Your task to perform on an android device: Empty the shopping cart on target. Add razer huntsman to the cart on target Image 0: 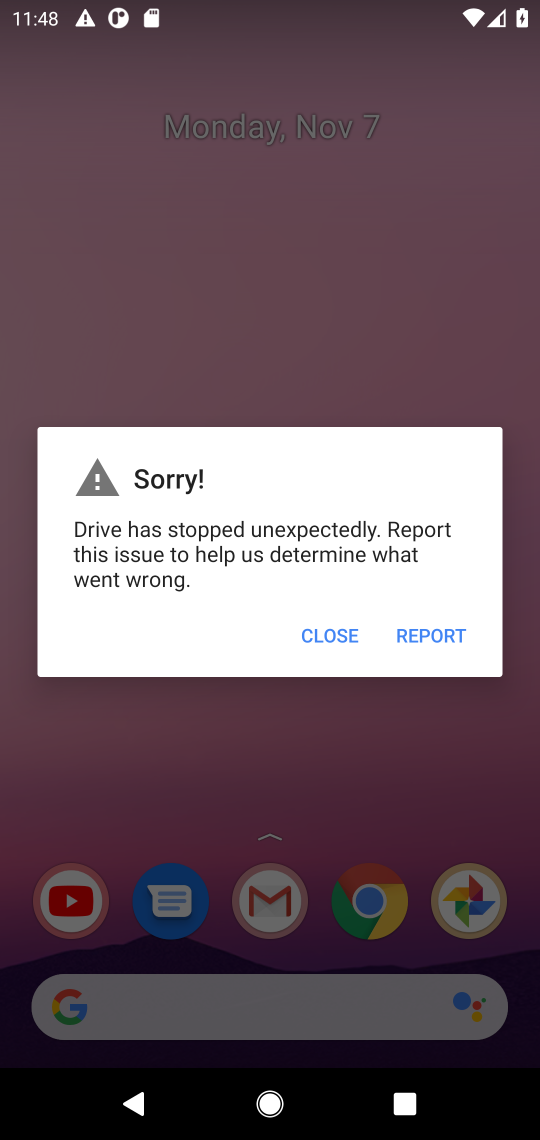
Step 0: click (339, 639)
Your task to perform on an android device: Empty the shopping cart on target. Add razer huntsman to the cart on target Image 1: 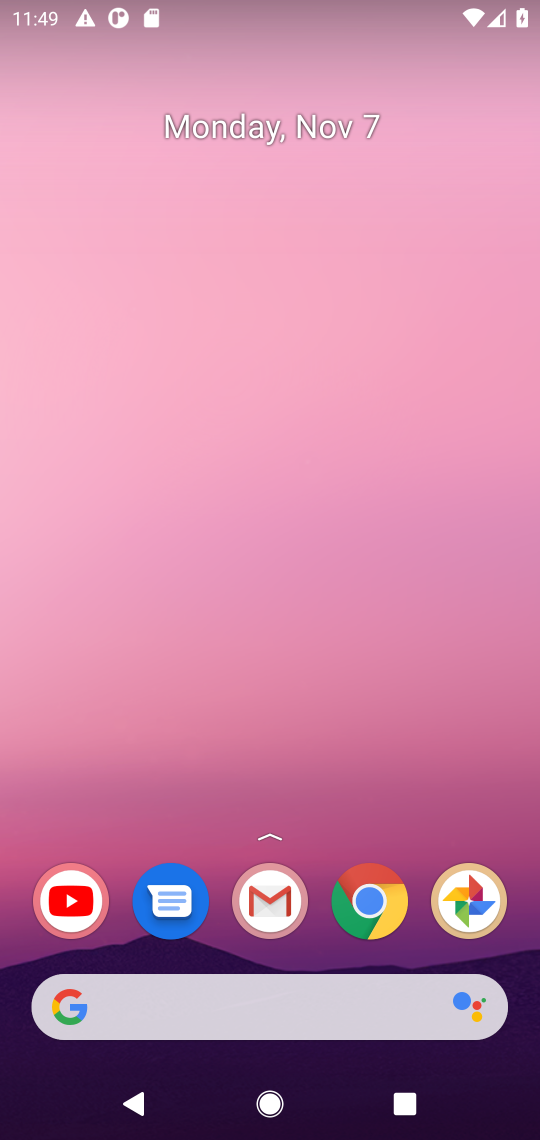
Step 1: click (365, 917)
Your task to perform on an android device: Empty the shopping cart on target. Add razer huntsman to the cart on target Image 2: 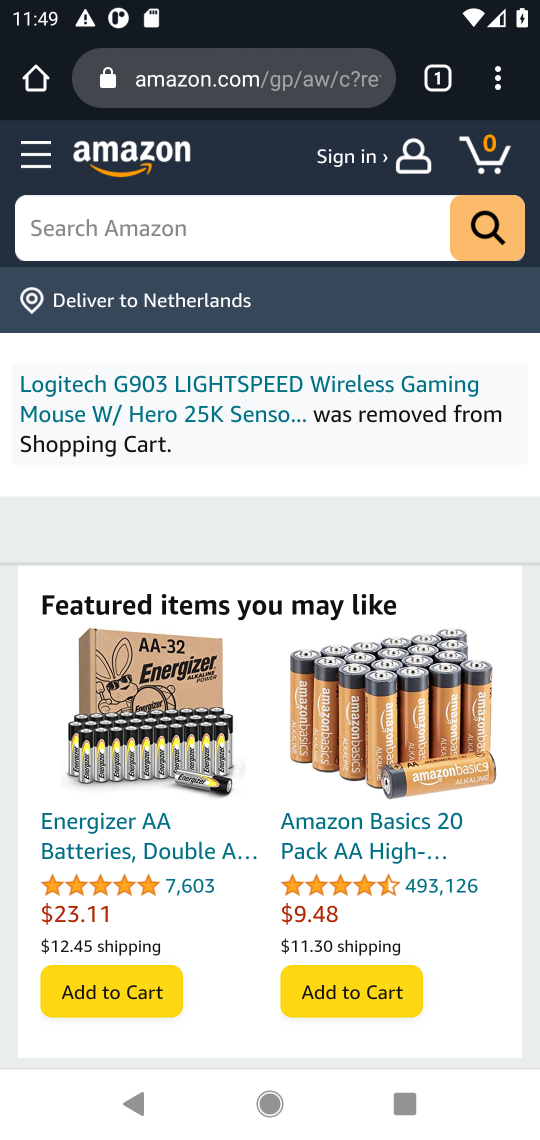
Step 2: click (217, 74)
Your task to perform on an android device: Empty the shopping cart on target. Add razer huntsman to the cart on target Image 3: 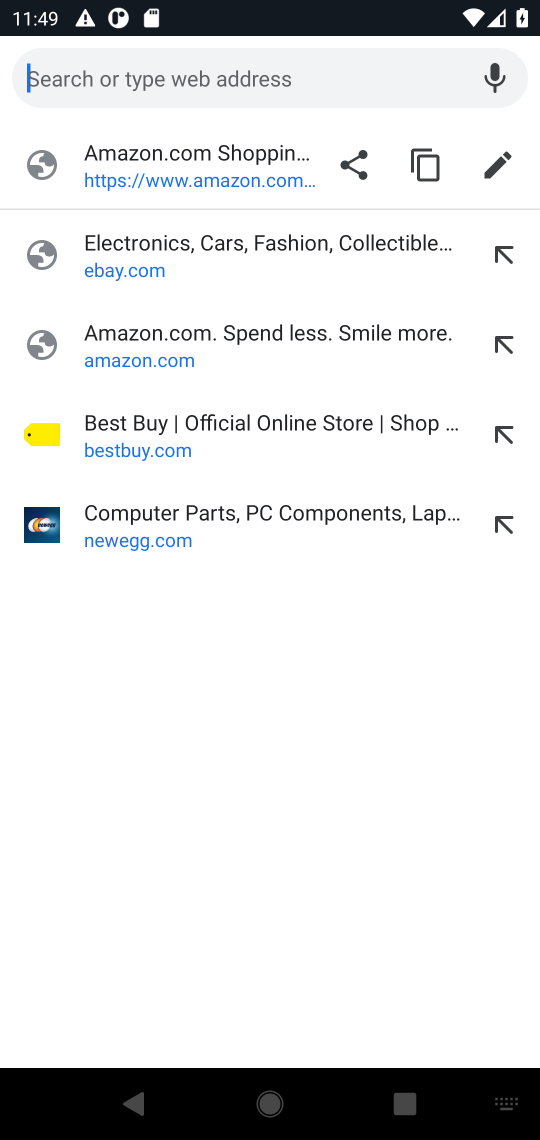
Step 3: type "target"
Your task to perform on an android device: Empty the shopping cart on target. Add razer huntsman to the cart on target Image 4: 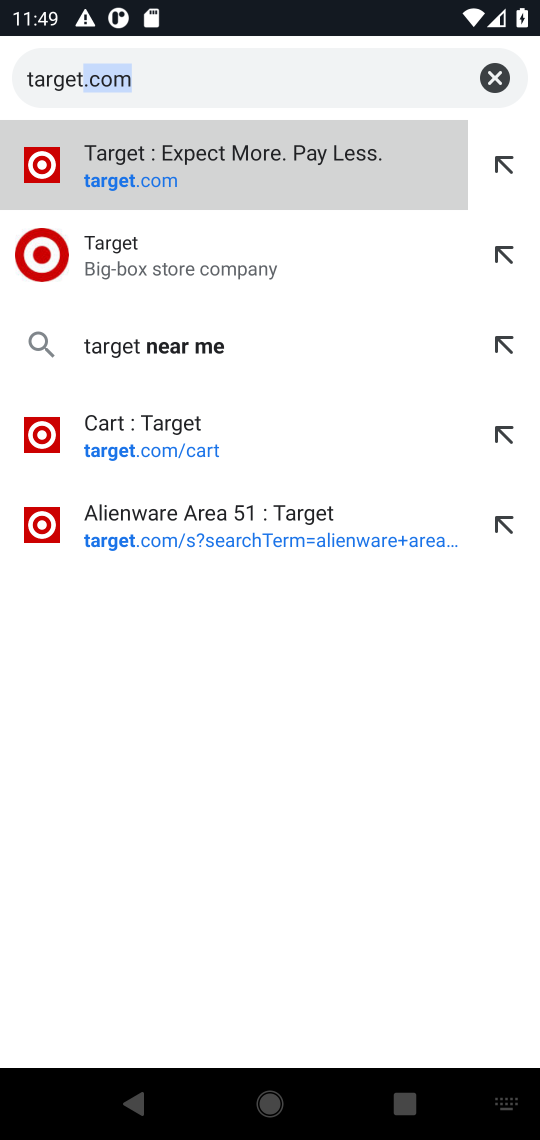
Step 4: click (131, 187)
Your task to perform on an android device: Empty the shopping cart on target. Add razer huntsman to the cart on target Image 5: 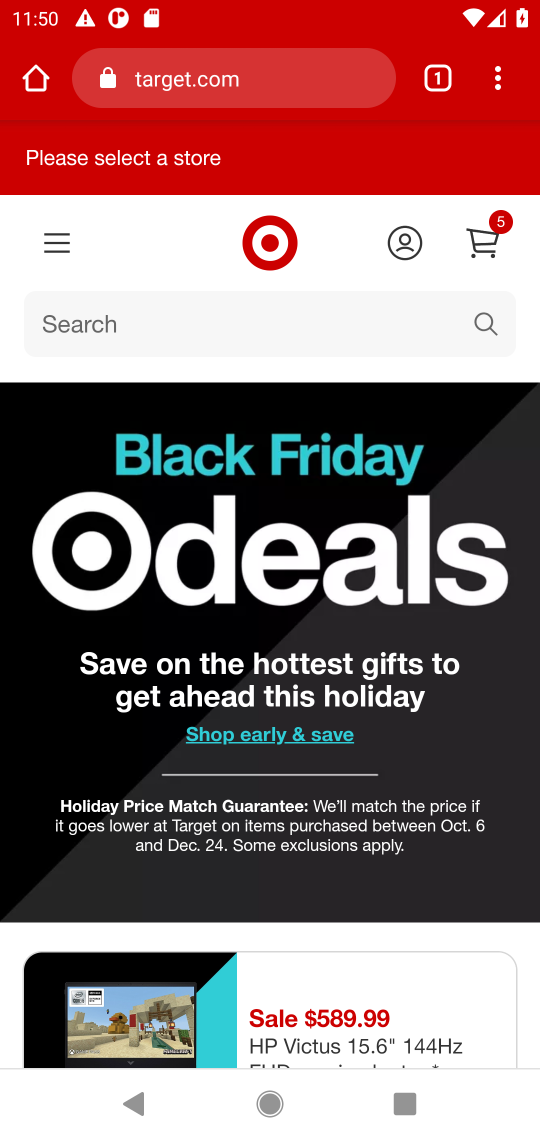
Step 5: click (272, 319)
Your task to perform on an android device: Empty the shopping cart on target. Add razer huntsman to the cart on target Image 6: 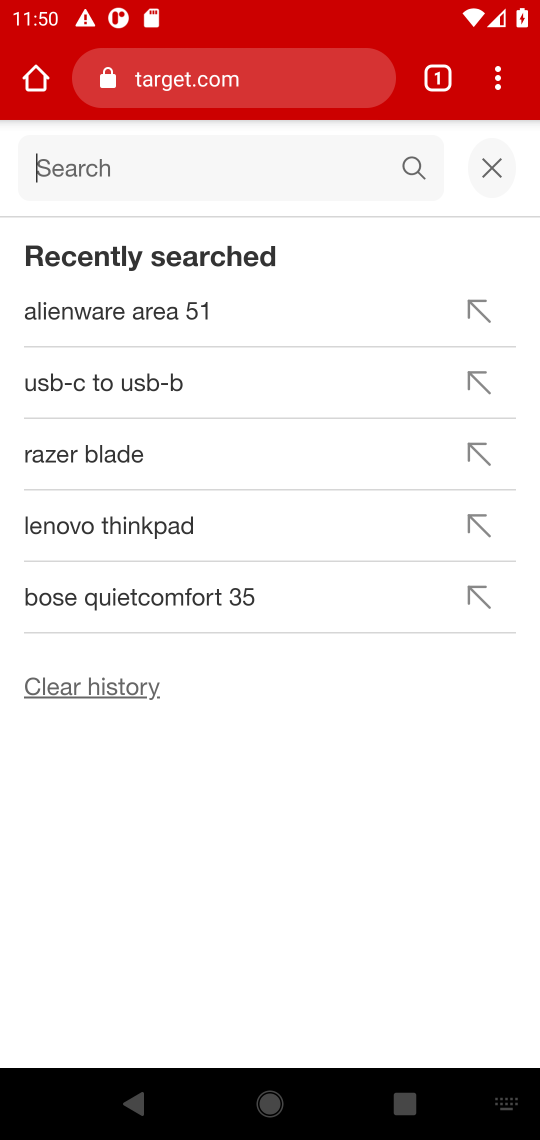
Step 6: type "razer huntsman"
Your task to perform on an android device: Empty the shopping cart on target. Add razer huntsman to the cart on target Image 7: 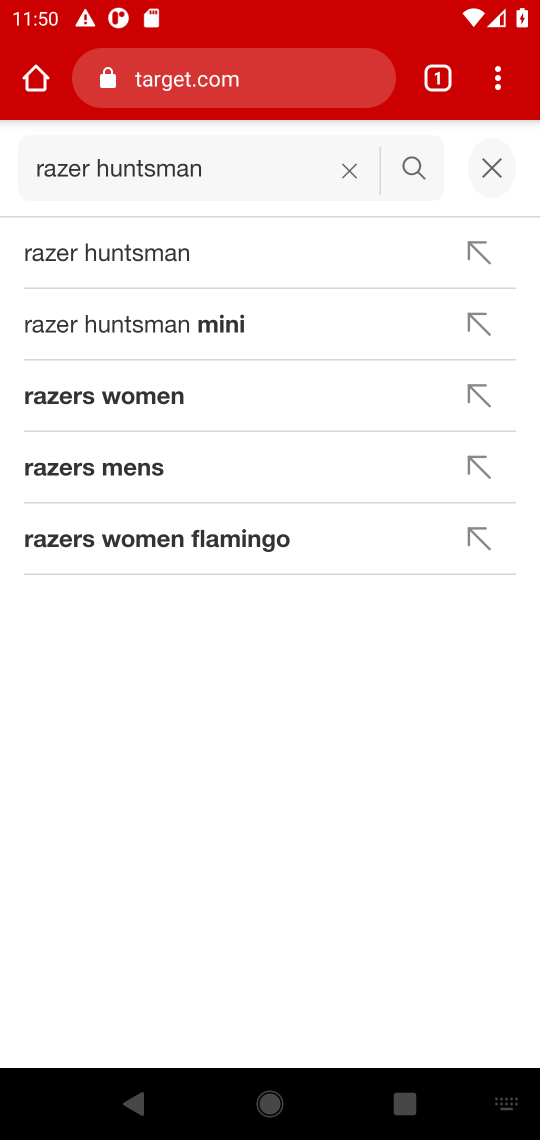
Step 7: press enter
Your task to perform on an android device: Empty the shopping cart on target. Add razer huntsman to the cart on target Image 8: 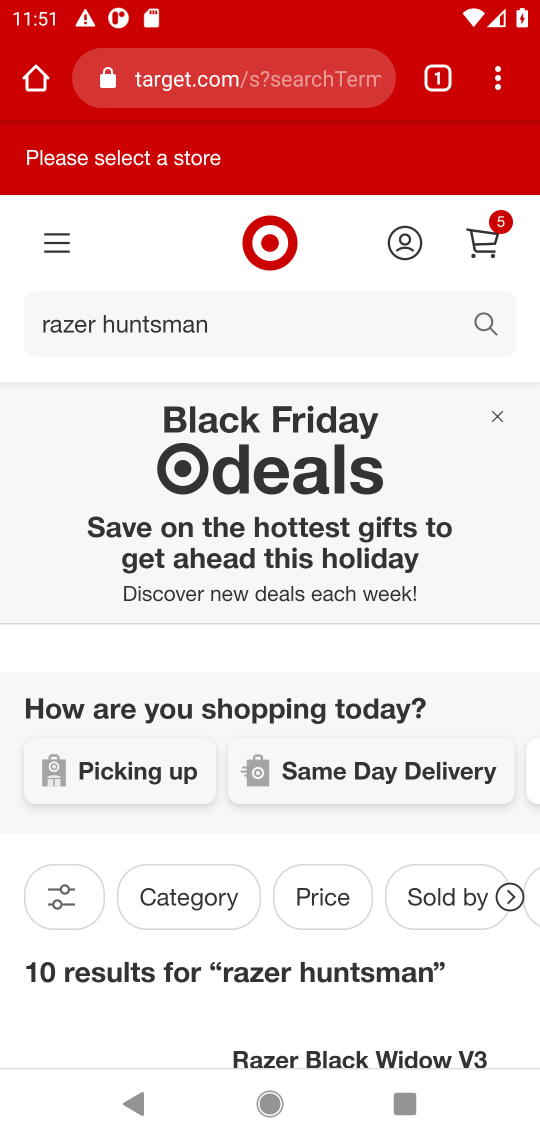
Step 8: click (344, 346)
Your task to perform on an android device: Empty the shopping cart on target. Add razer huntsman to the cart on target Image 9: 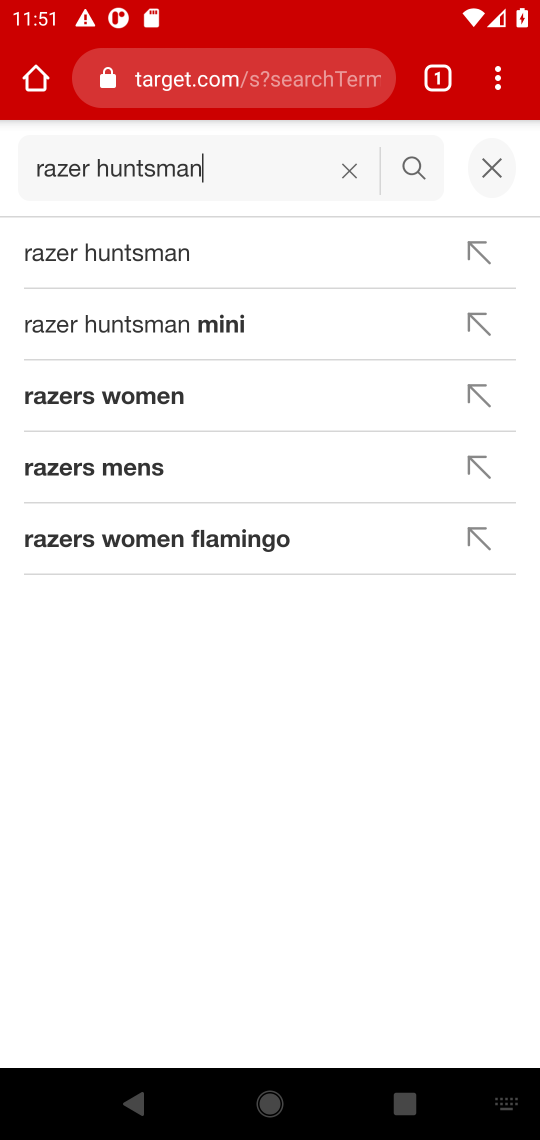
Step 9: press enter
Your task to perform on an android device: Empty the shopping cart on target. Add razer huntsman to the cart on target Image 10: 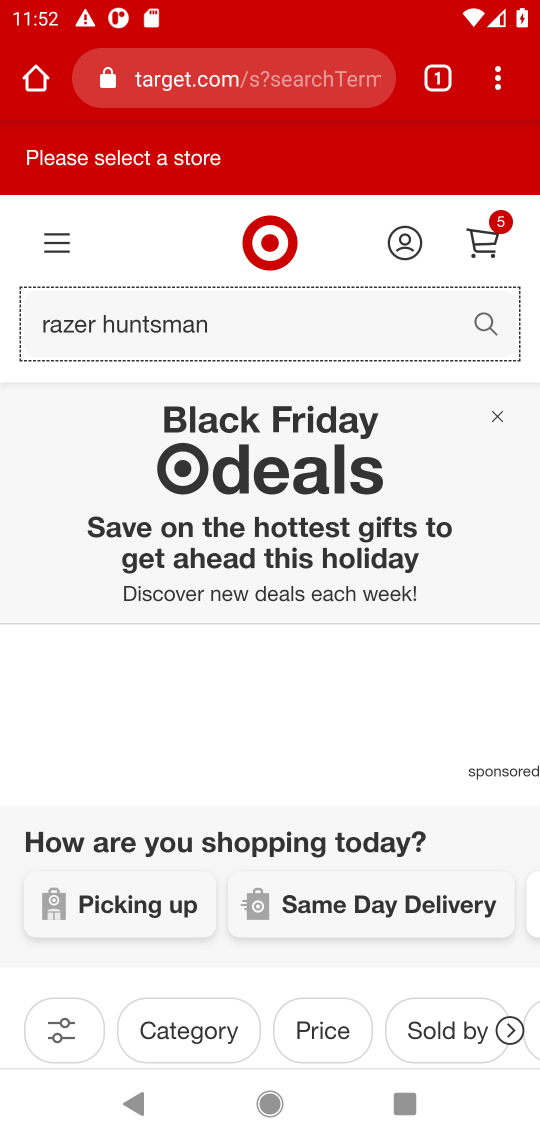
Step 10: task complete